Your task to perform on an android device: turn off javascript in the chrome app Image 0: 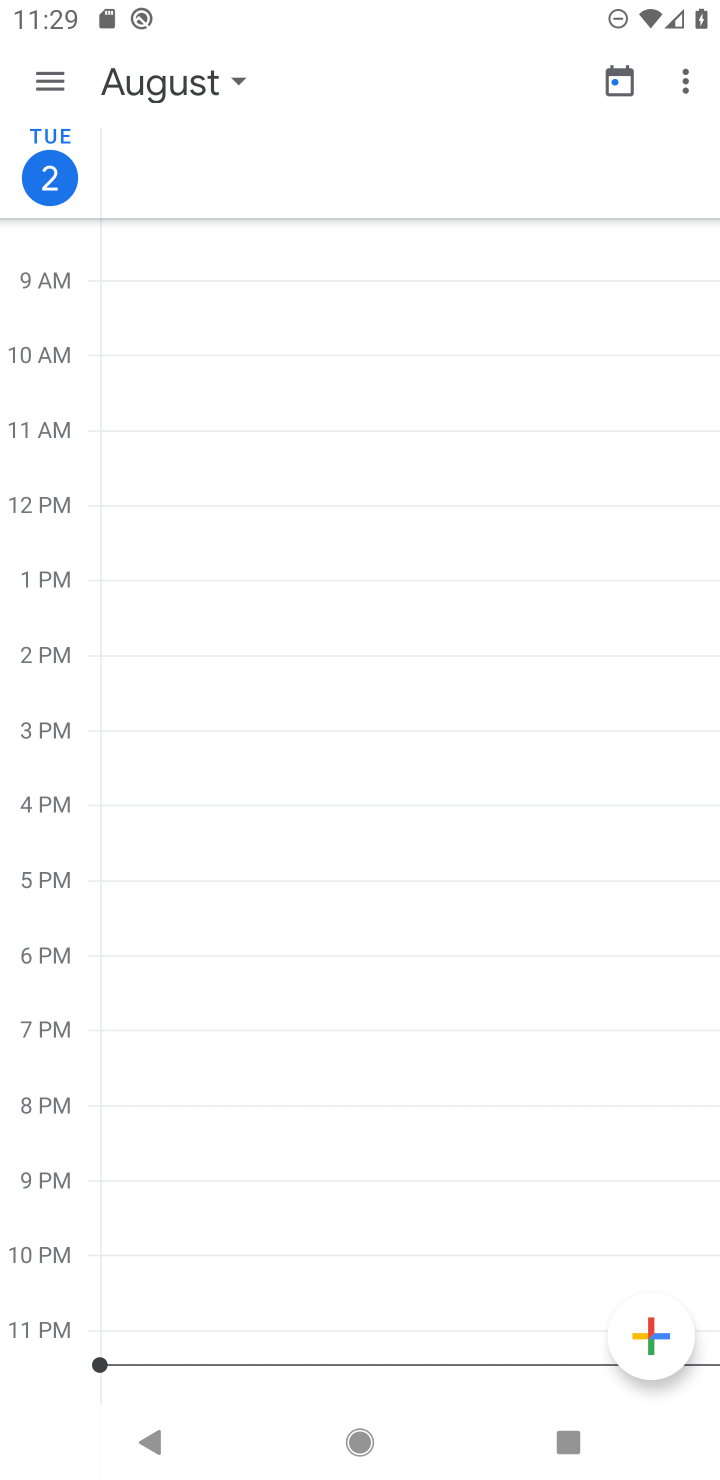
Step 0: press home button
Your task to perform on an android device: turn off javascript in the chrome app Image 1: 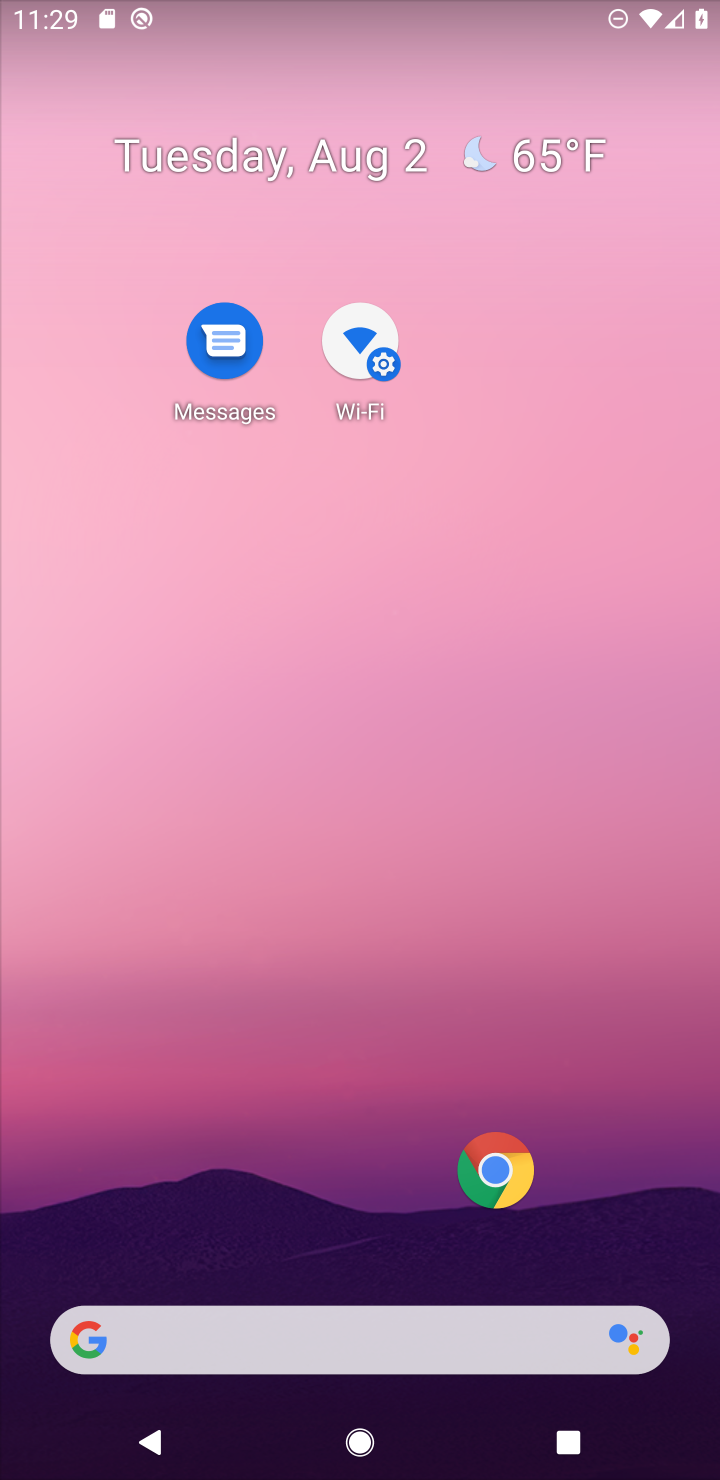
Step 1: drag from (359, 877) to (393, 119)
Your task to perform on an android device: turn off javascript in the chrome app Image 2: 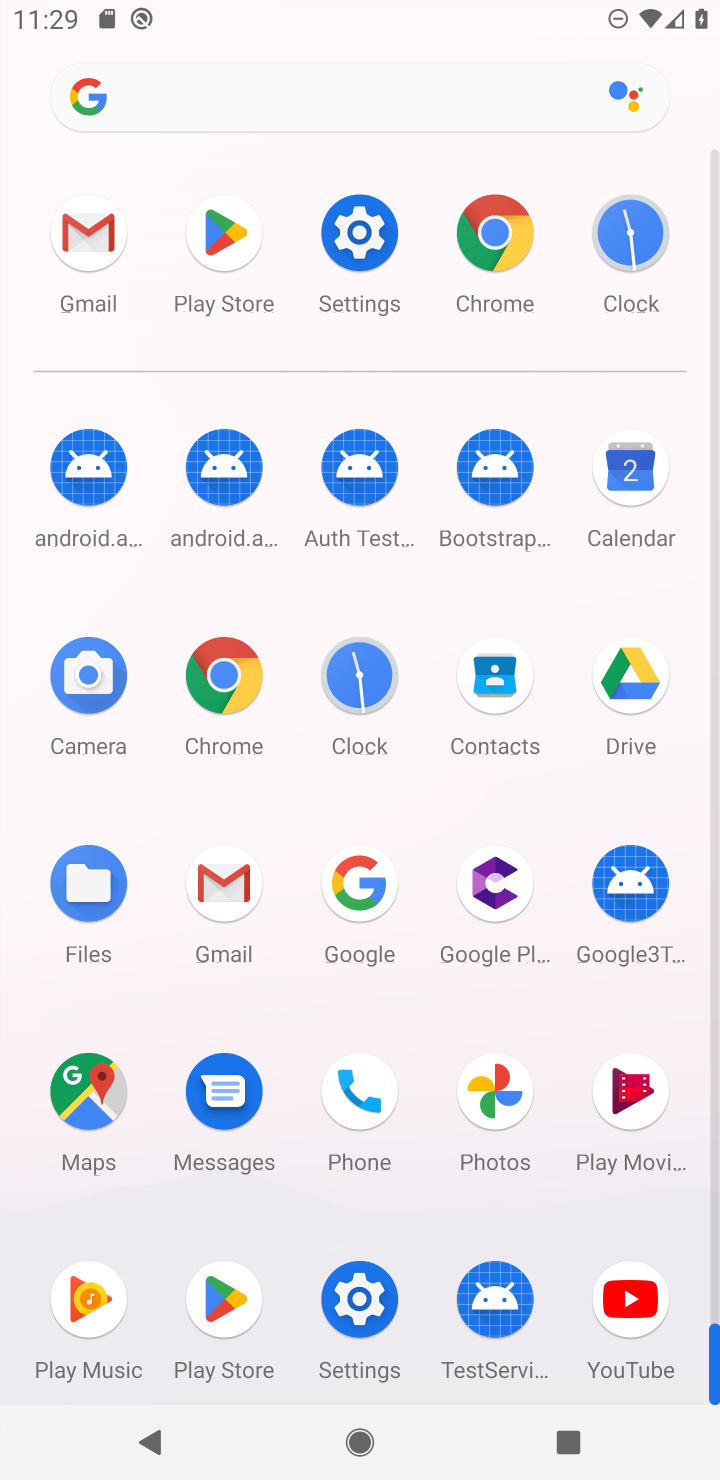
Step 2: drag from (434, 1202) to (0, 682)
Your task to perform on an android device: turn off javascript in the chrome app Image 3: 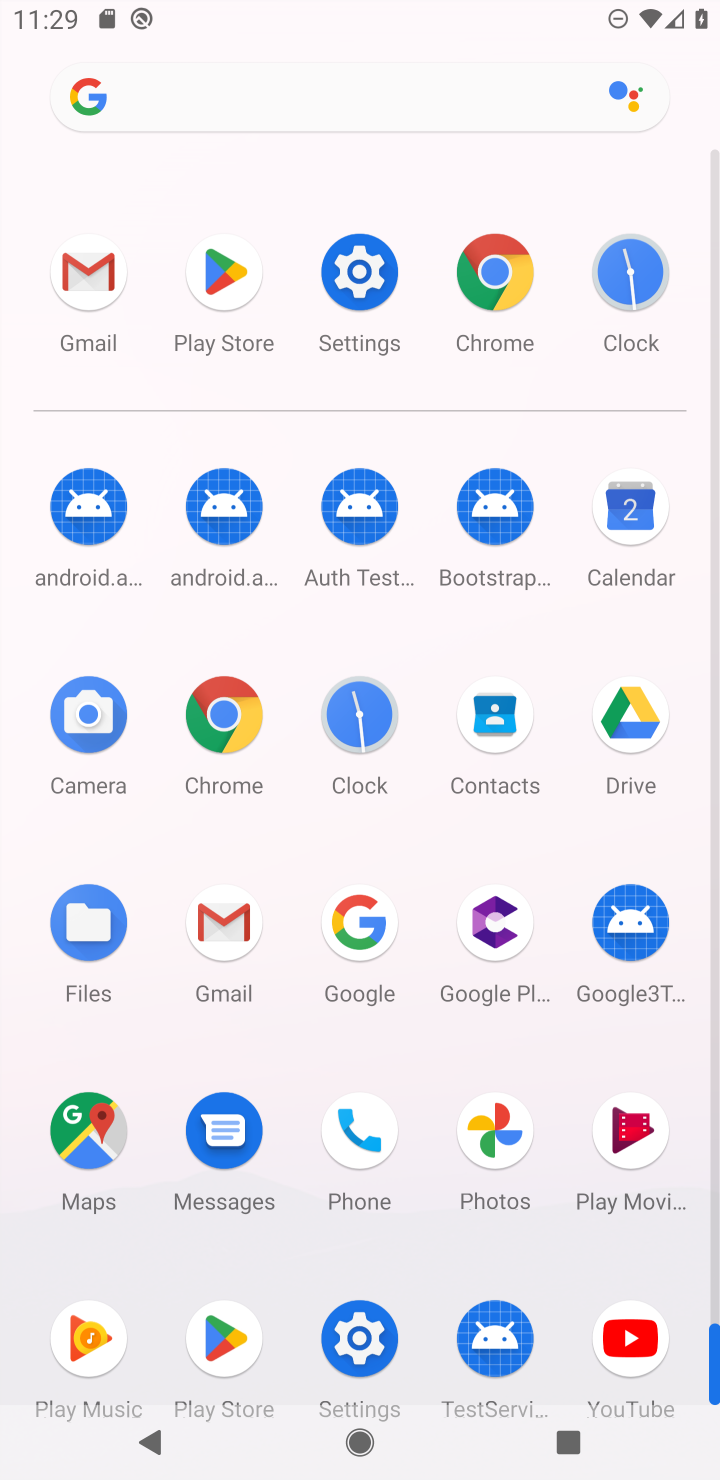
Step 3: drag from (431, 1275) to (452, 624)
Your task to perform on an android device: turn off javascript in the chrome app Image 4: 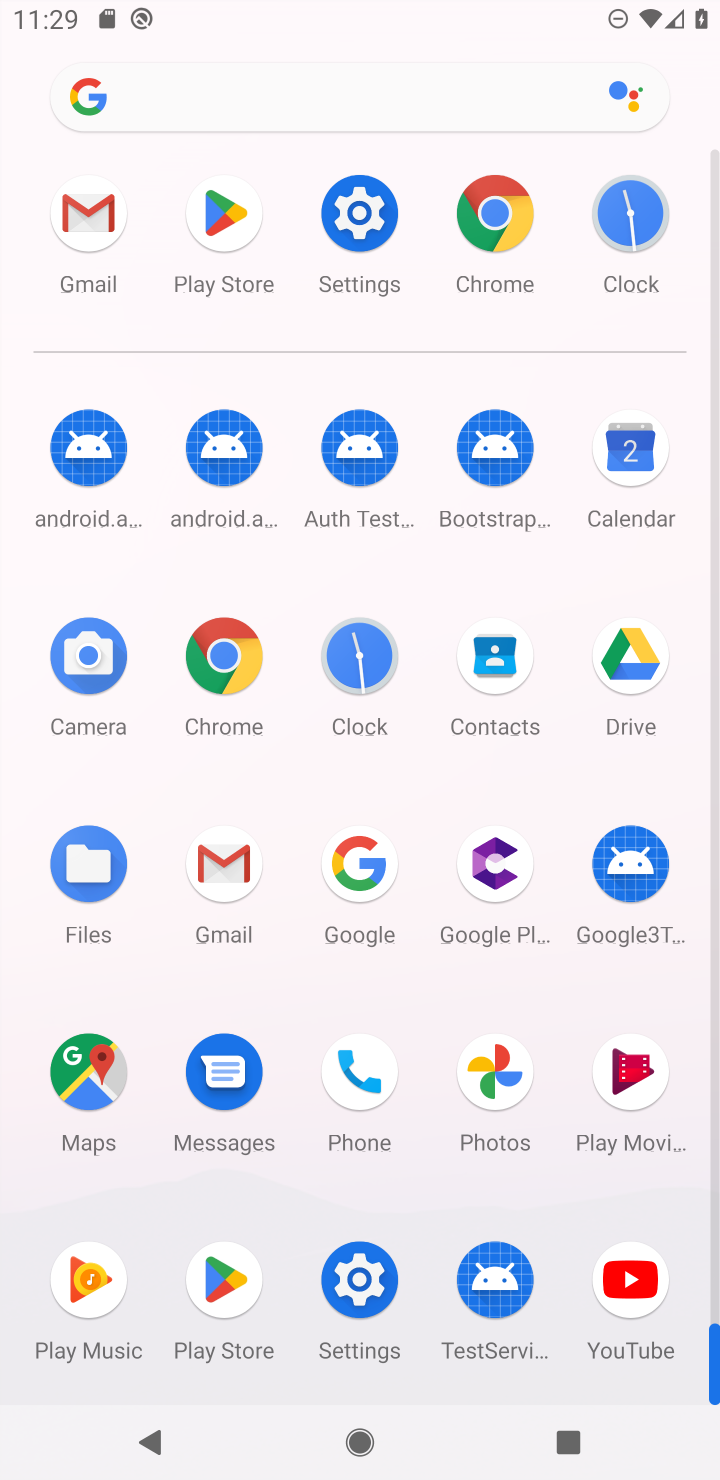
Step 4: click (194, 663)
Your task to perform on an android device: turn off javascript in the chrome app Image 5: 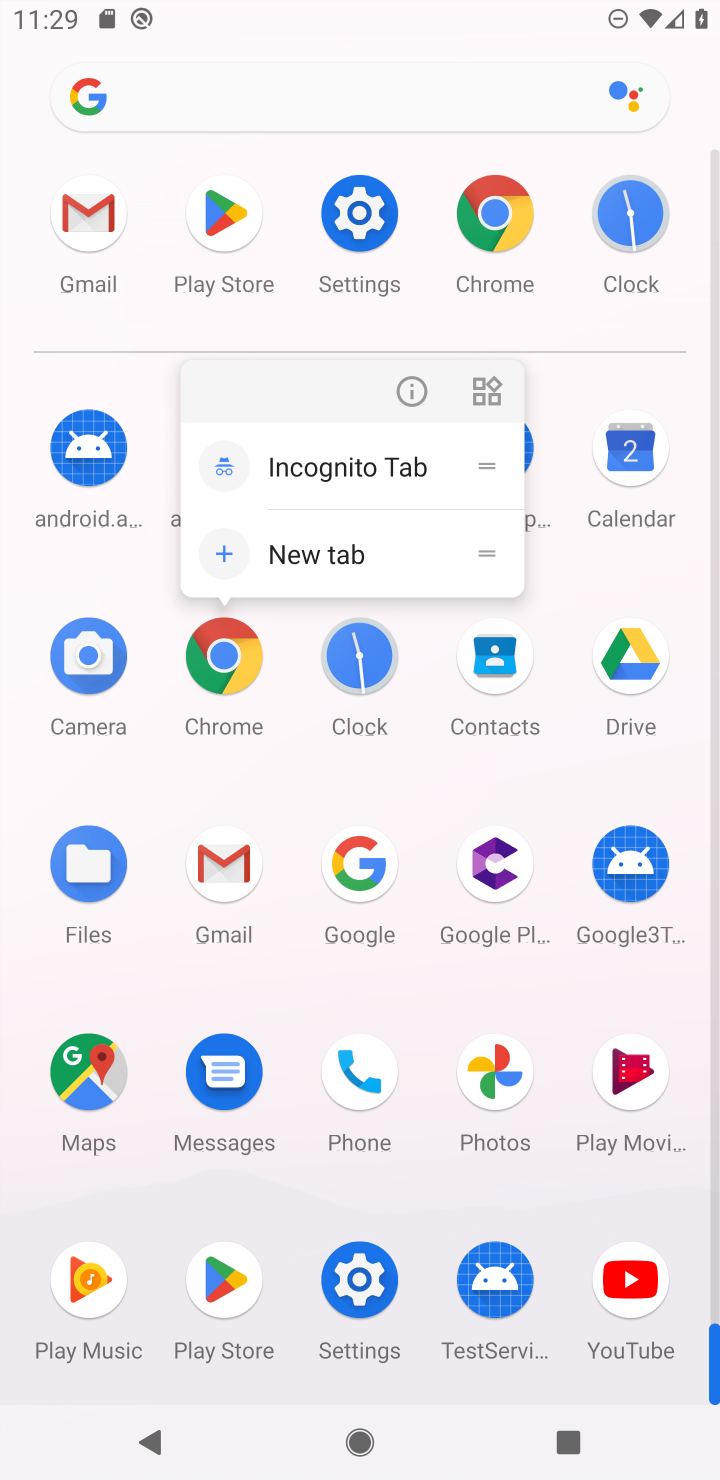
Step 5: click (420, 405)
Your task to perform on an android device: turn off javascript in the chrome app Image 6: 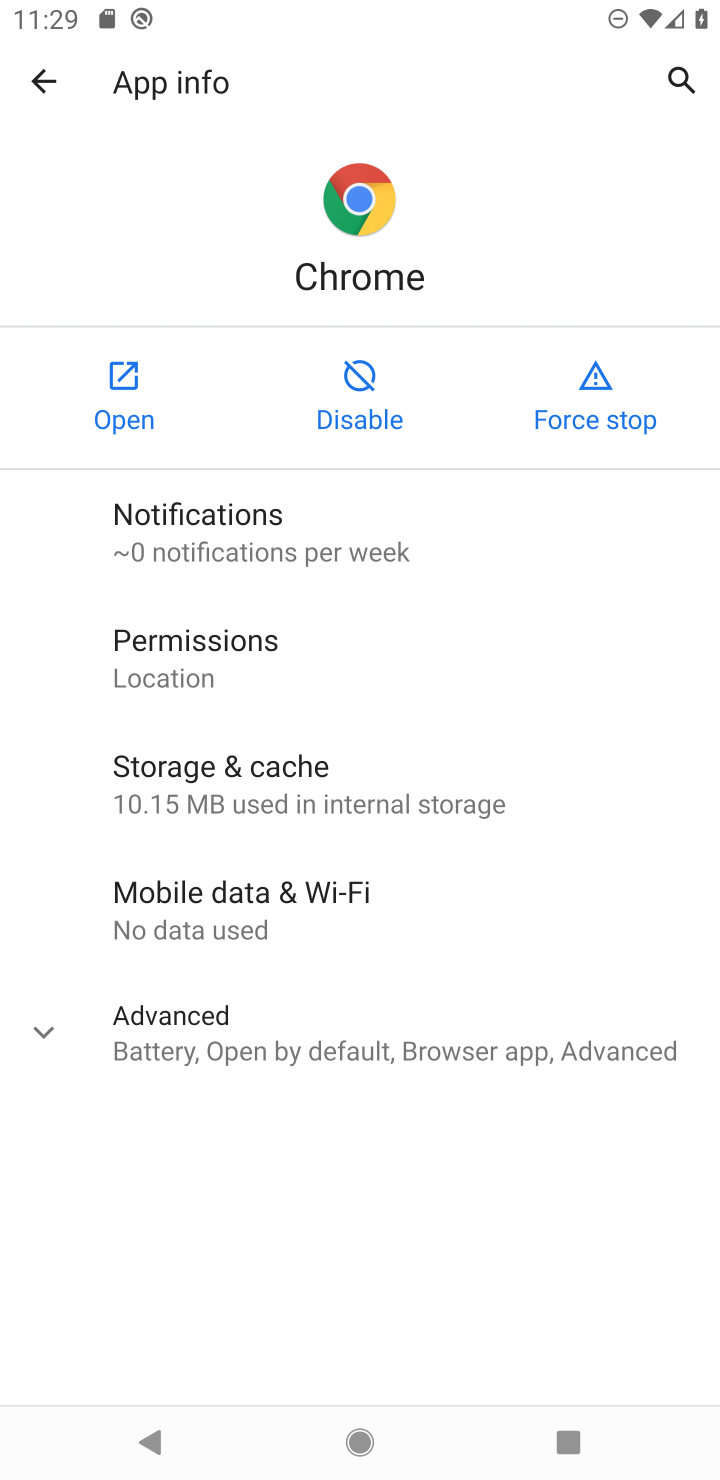
Step 6: click (146, 401)
Your task to perform on an android device: turn off javascript in the chrome app Image 7: 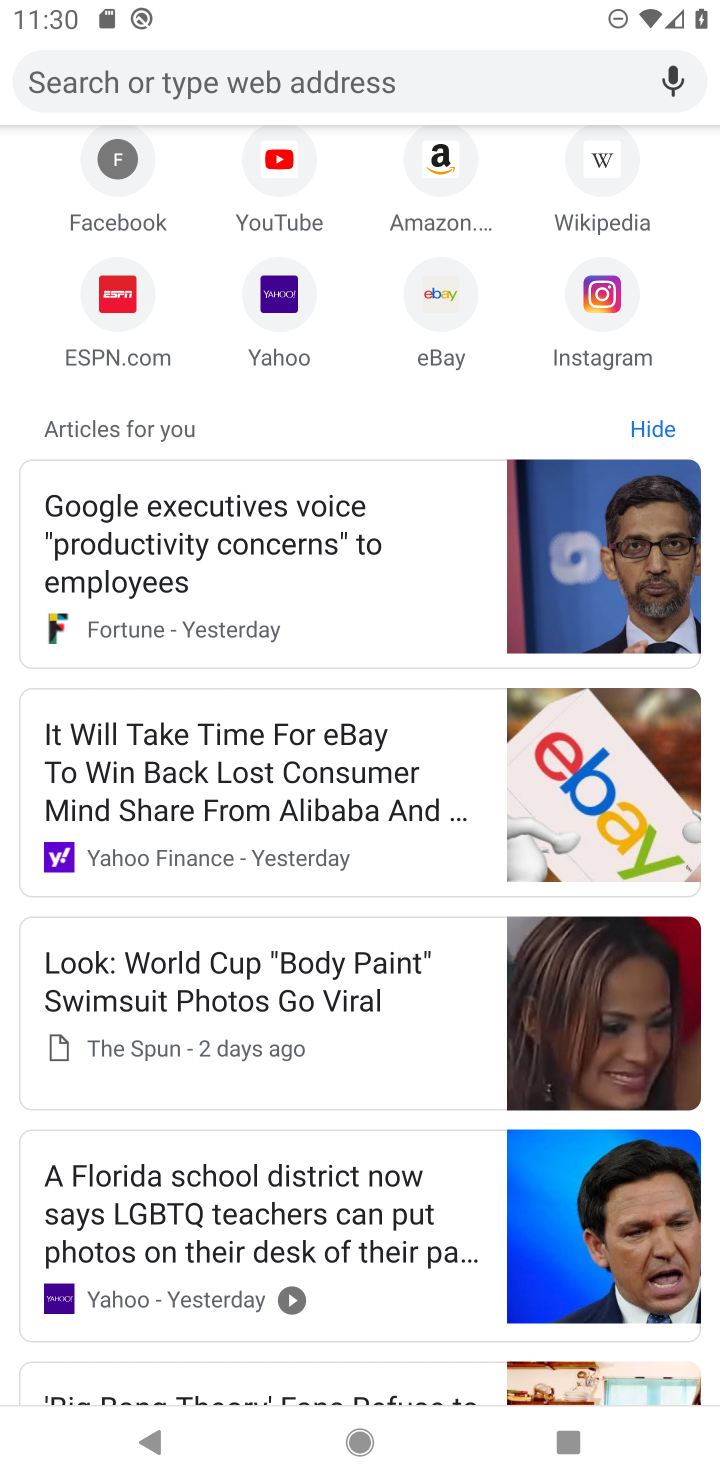
Step 7: drag from (318, 954) to (650, 1445)
Your task to perform on an android device: turn off javascript in the chrome app Image 8: 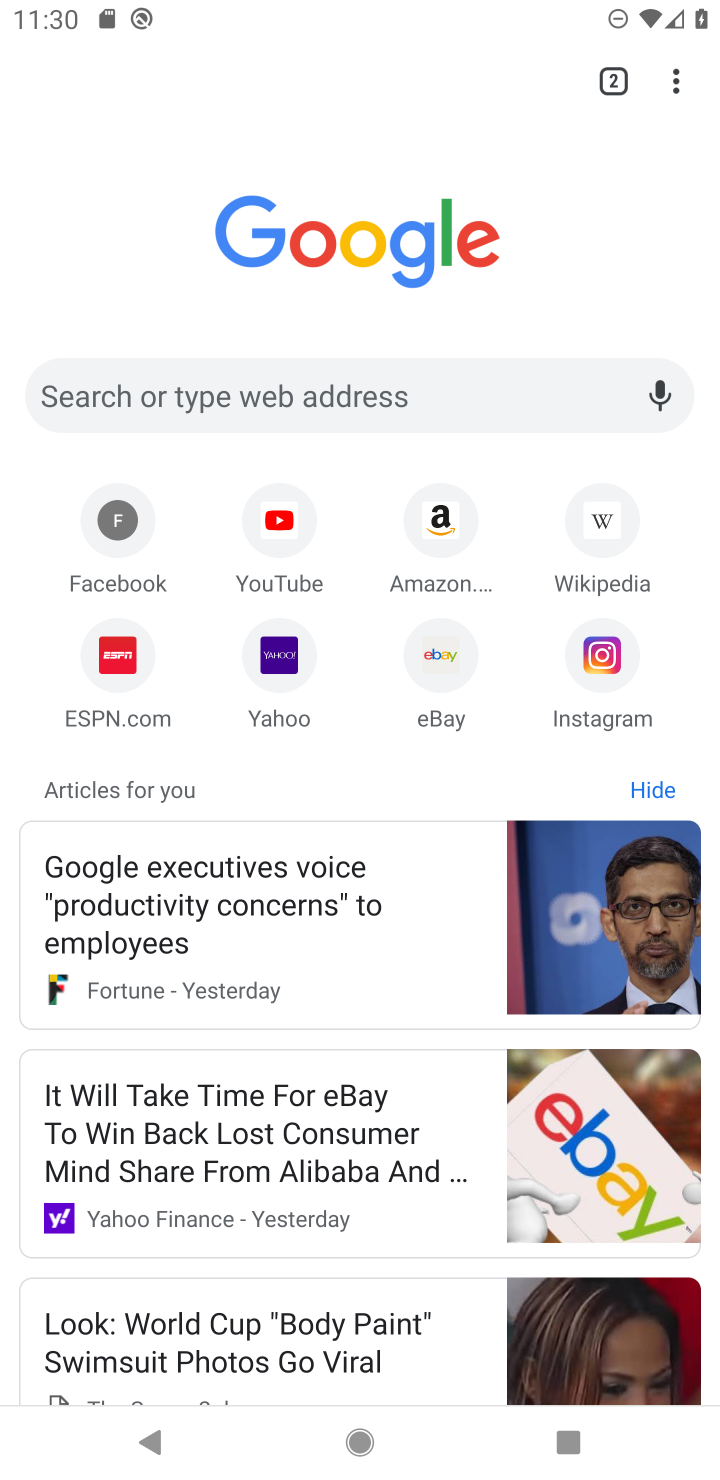
Step 8: drag from (676, 87) to (448, 785)
Your task to perform on an android device: turn off javascript in the chrome app Image 9: 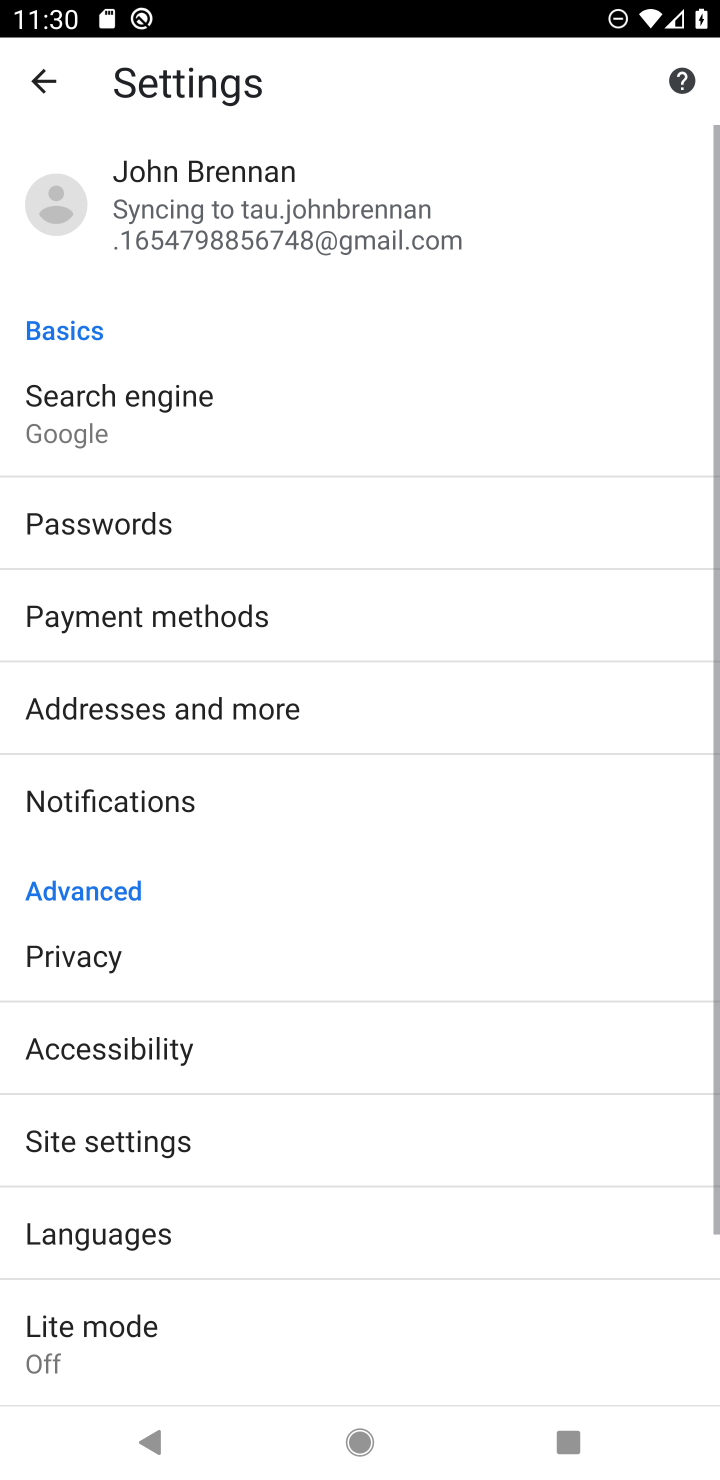
Step 9: drag from (359, 1216) to (315, 719)
Your task to perform on an android device: turn off javascript in the chrome app Image 10: 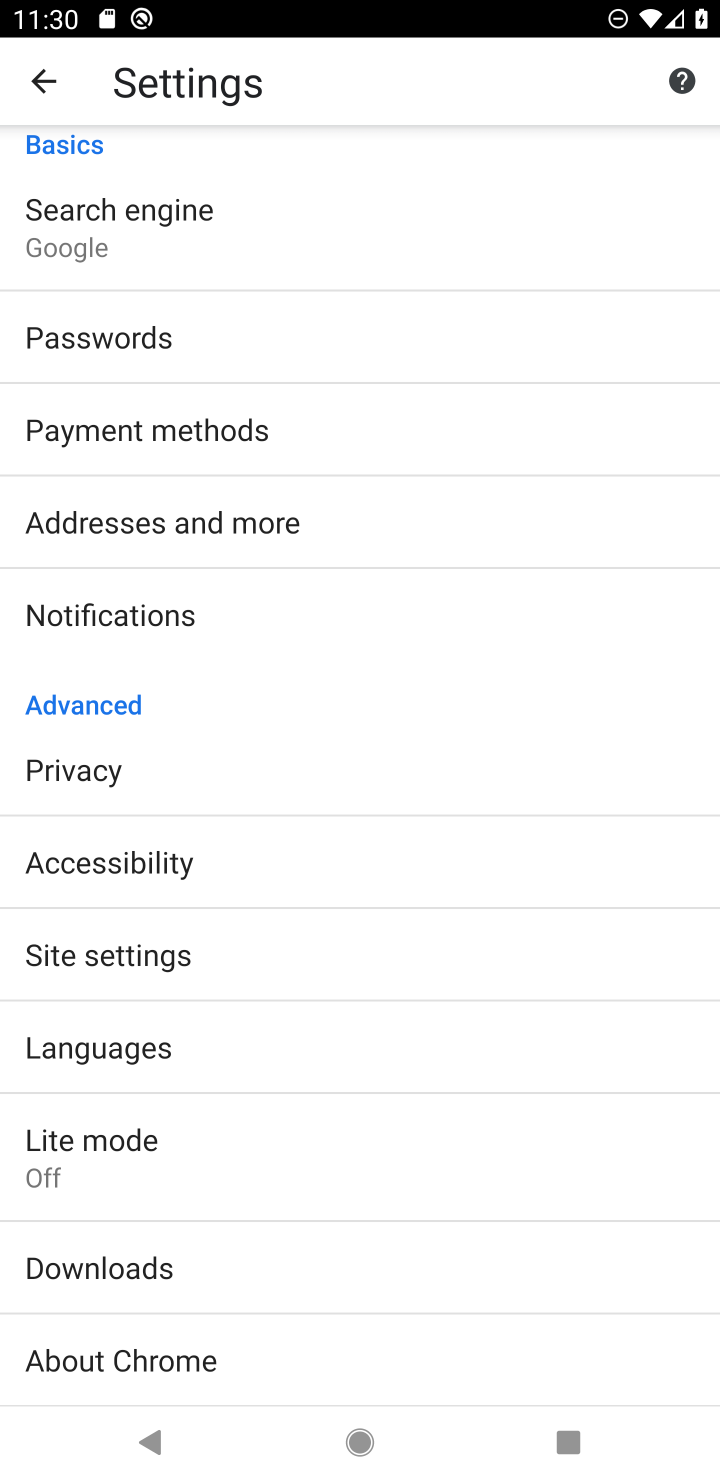
Step 10: click (192, 945)
Your task to perform on an android device: turn off javascript in the chrome app Image 11: 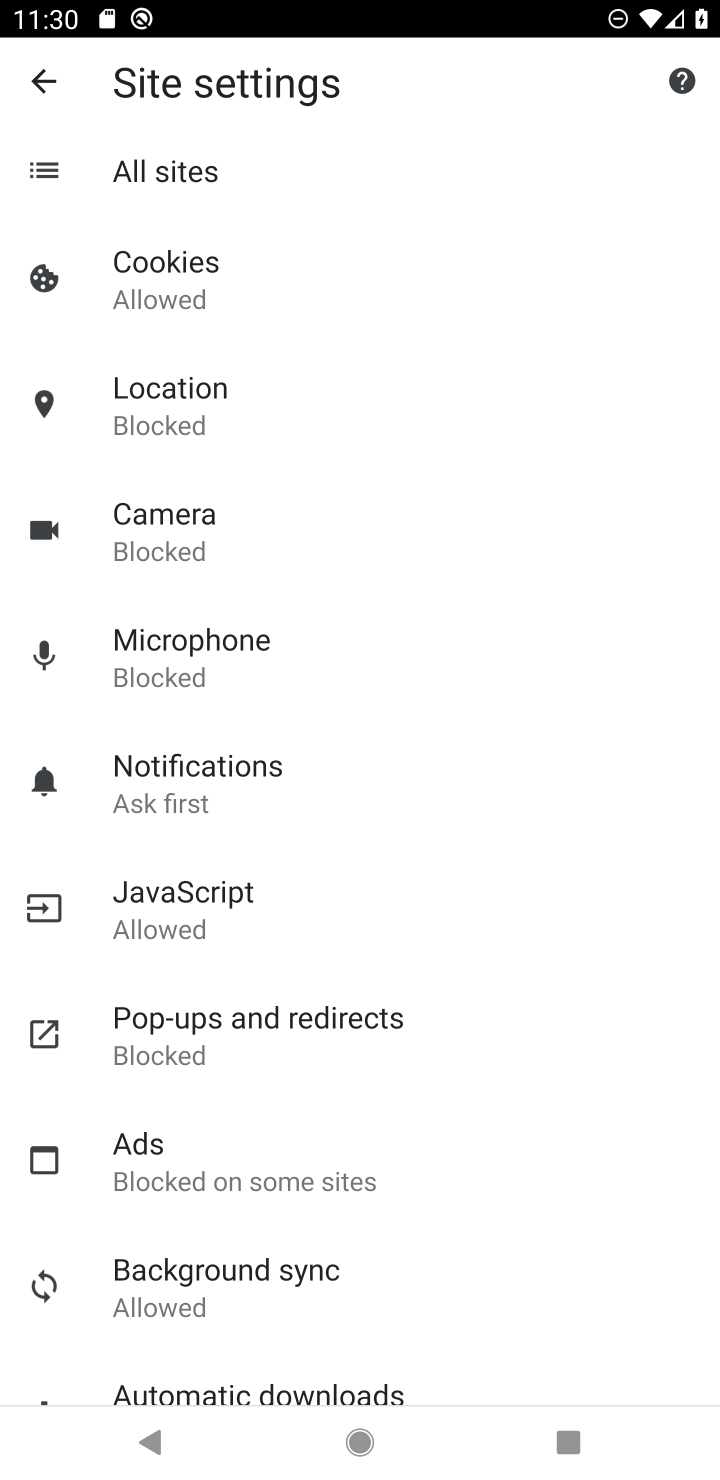
Step 11: click (204, 936)
Your task to perform on an android device: turn off javascript in the chrome app Image 12: 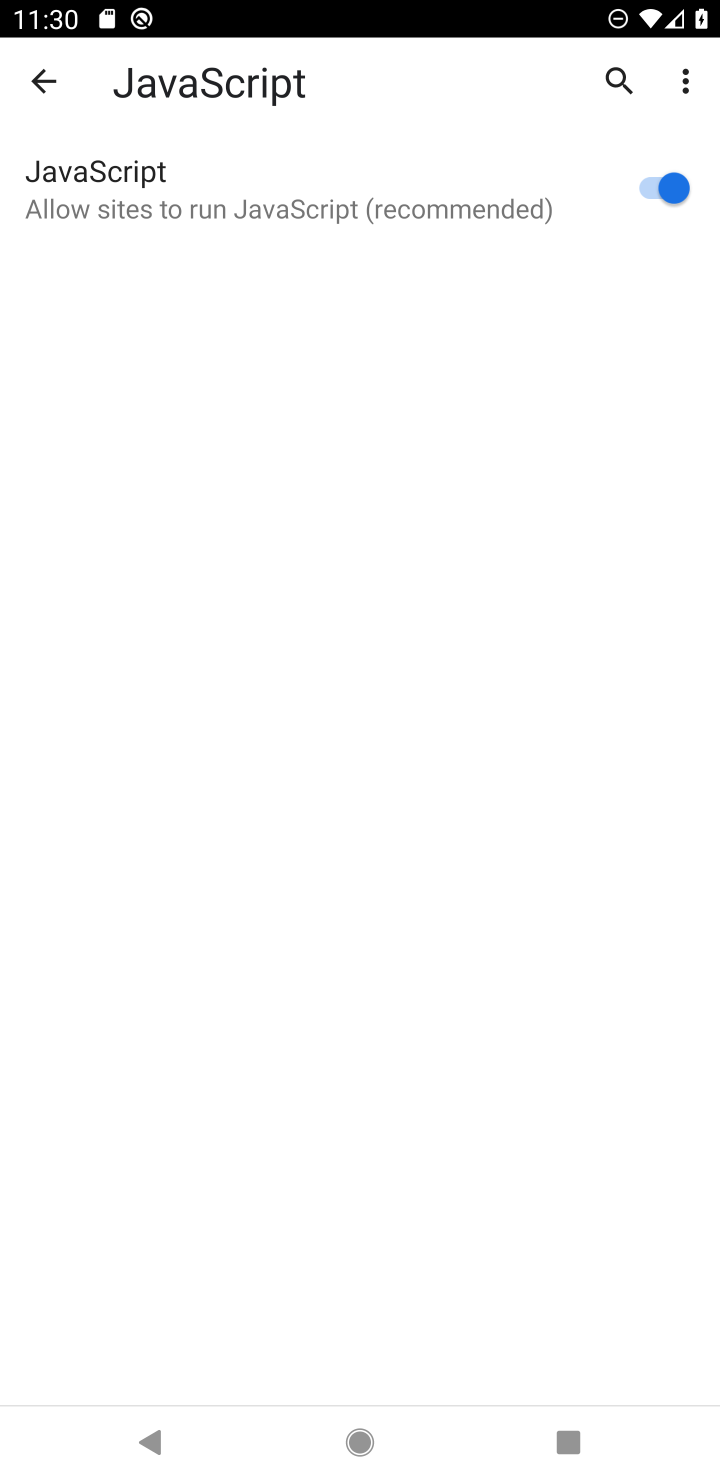
Step 12: click (651, 175)
Your task to perform on an android device: turn off javascript in the chrome app Image 13: 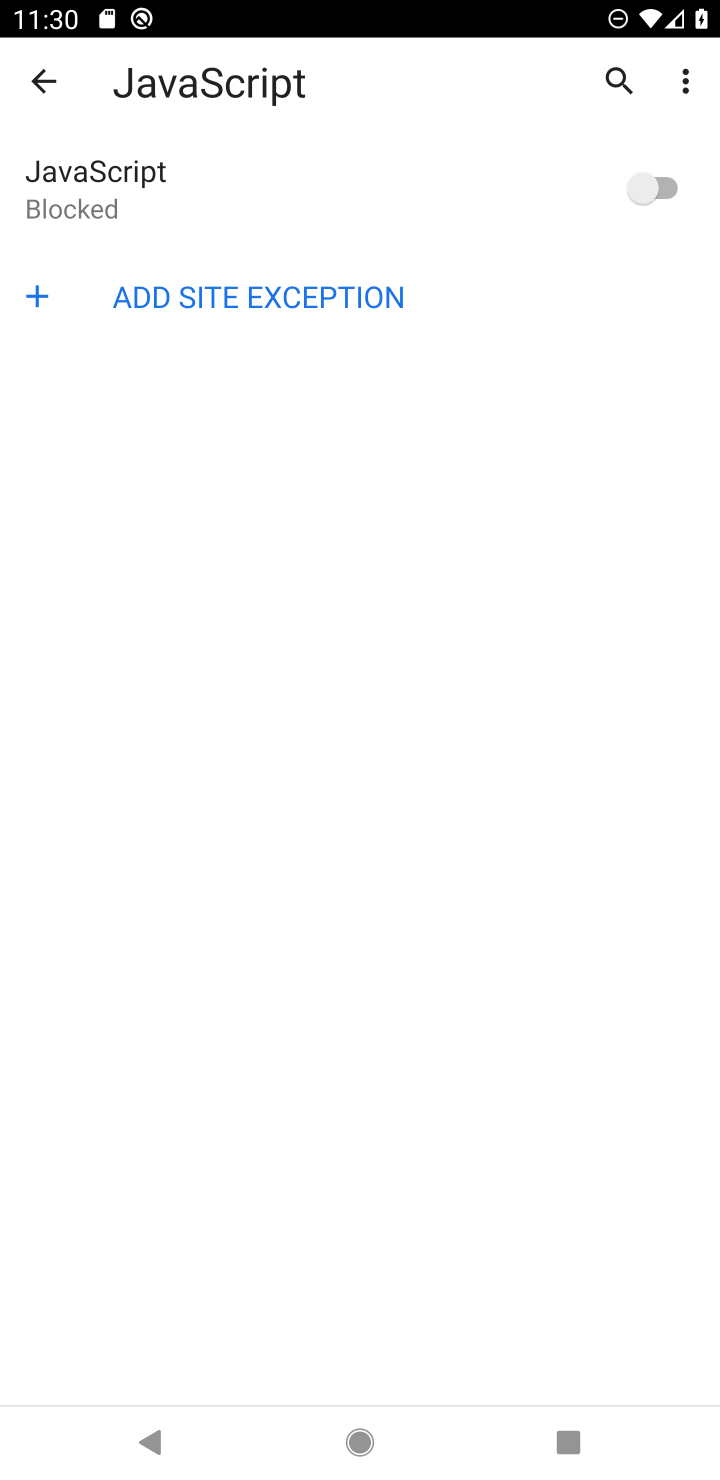
Step 13: task complete